Your task to perform on an android device: Set the phone to "Do not disturb". Image 0: 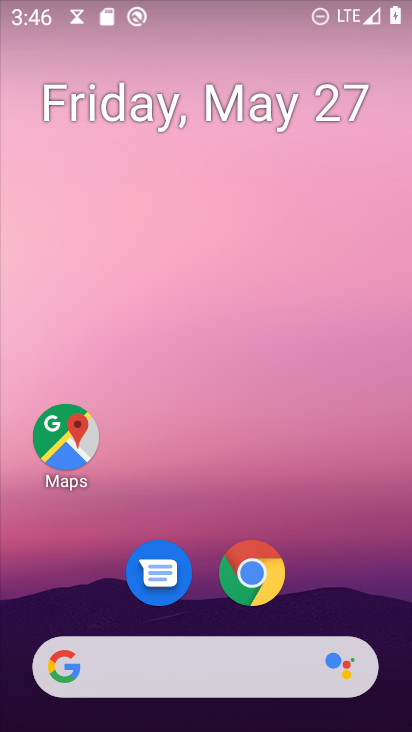
Step 0: drag from (309, 591) to (283, 57)
Your task to perform on an android device: Set the phone to "Do not disturb". Image 1: 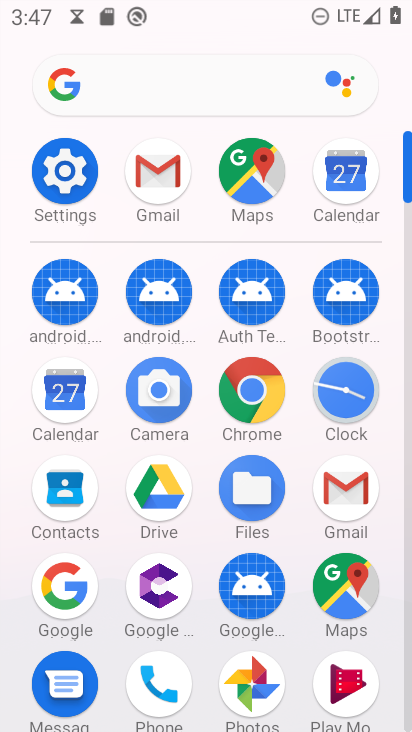
Step 1: click (53, 163)
Your task to perform on an android device: Set the phone to "Do not disturb". Image 2: 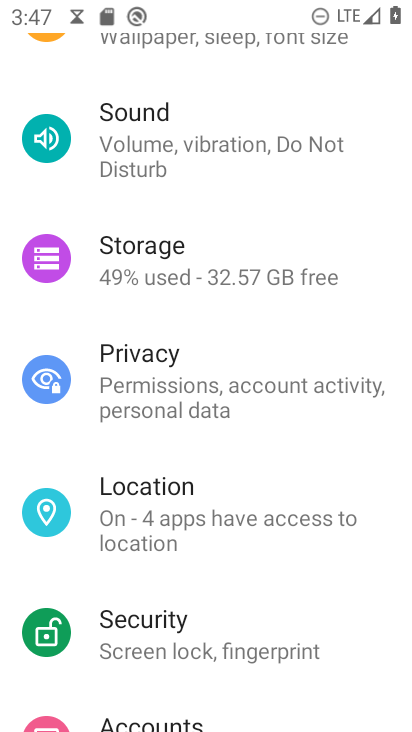
Step 2: click (324, 146)
Your task to perform on an android device: Set the phone to "Do not disturb". Image 3: 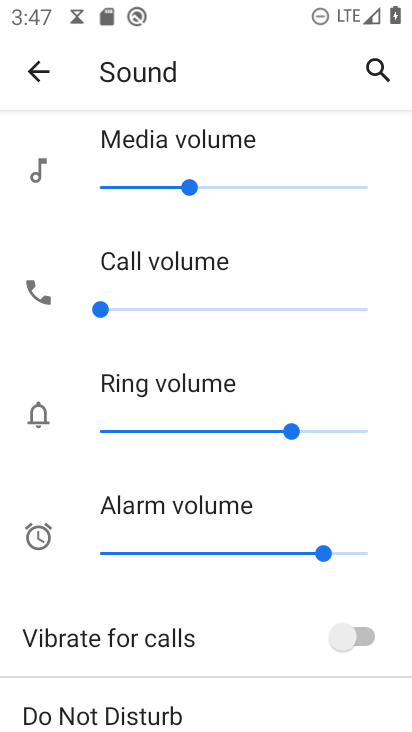
Step 3: drag from (131, 630) to (195, 55)
Your task to perform on an android device: Set the phone to "Do not disturb". Image 4: 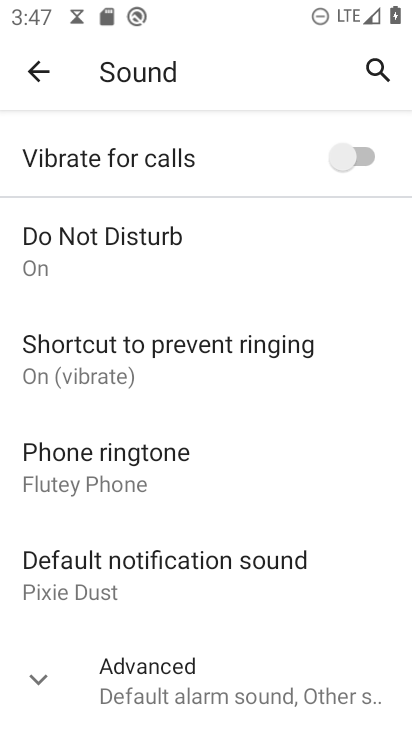
Step 4: drag from (138, 682) to (207, 199)
Your task to perform on an android device: Set the phone to "Do not disturb". Image 5: 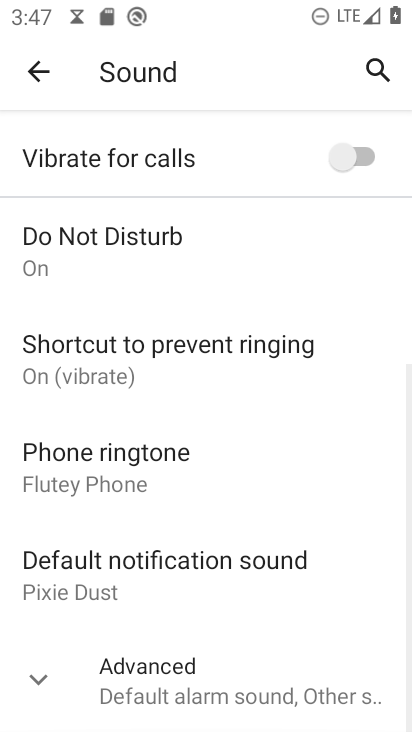
Step 5: click (169, 234)
Your task to perform on an android device: Set the phone to "Do not disturb". Image 6: 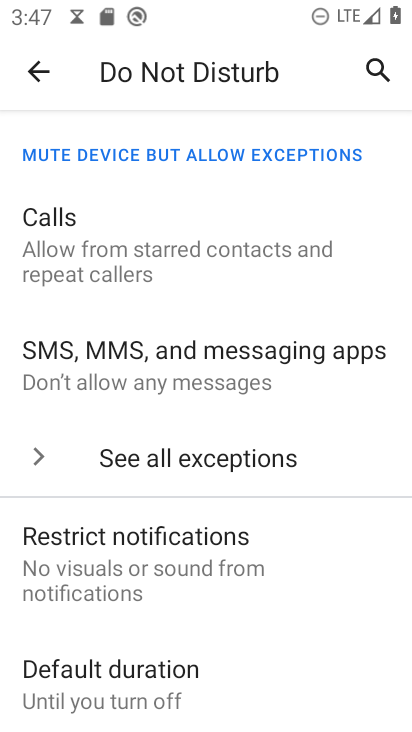
Step 6: task complete